Your task to perform on an android device: Search for "usb-c to usb-b" on bestbuy.com, select the first entry, and add it to the cart. Image 0: 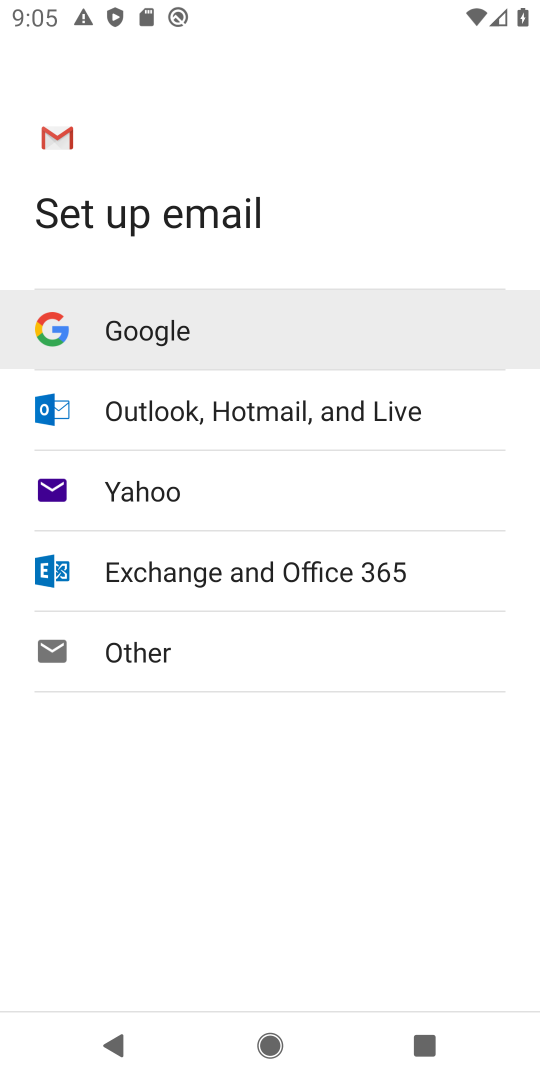
Step 0: press home button
Your task to perform on an android device: Search for "usb-c to usb-b" on bestbuy.com, select the first entry, and add it to the cart. Image 1: 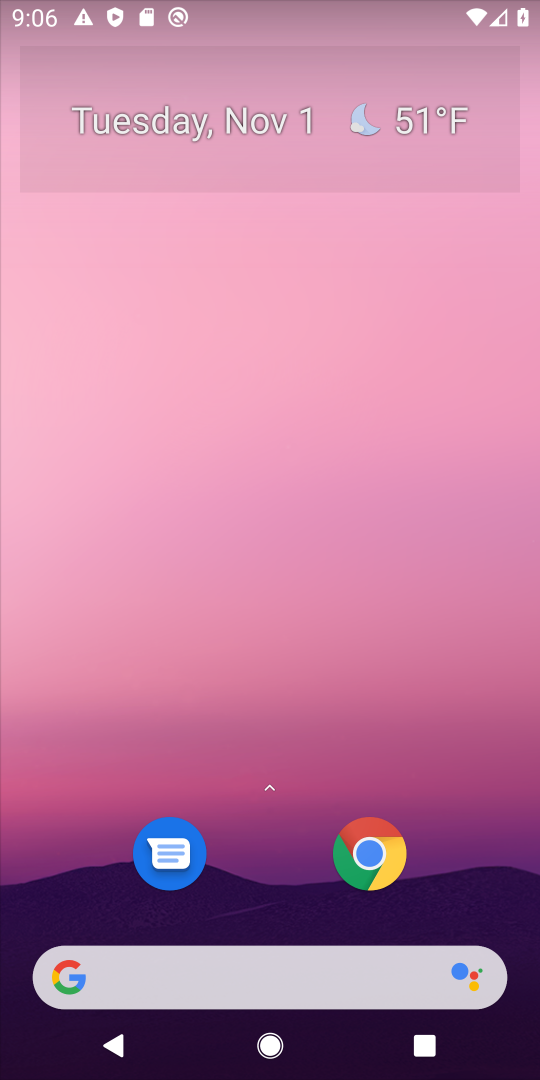
Step 1: click (286, 1007)
Your task to perform on an android device: Search for "usb-c to usb-b" on bestbuy.com, select the first entry, and add it to the cart. Image 2: 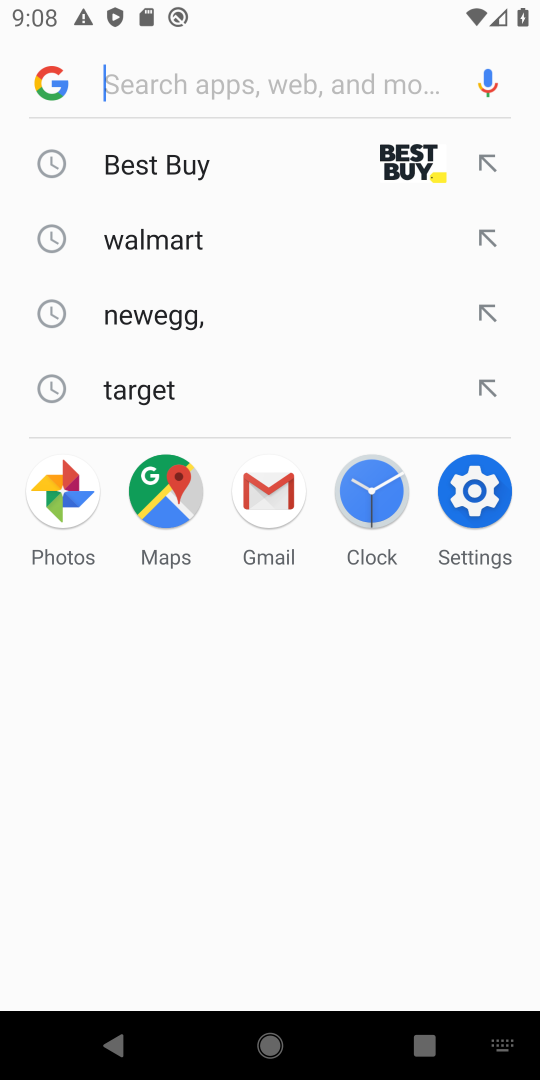
Step 2: click (182, 187)
Your task to perform on an android device: Search for "usb-c to usb-b" on bestbuy.com, select the first entry, and add it to the cart. Image 3: 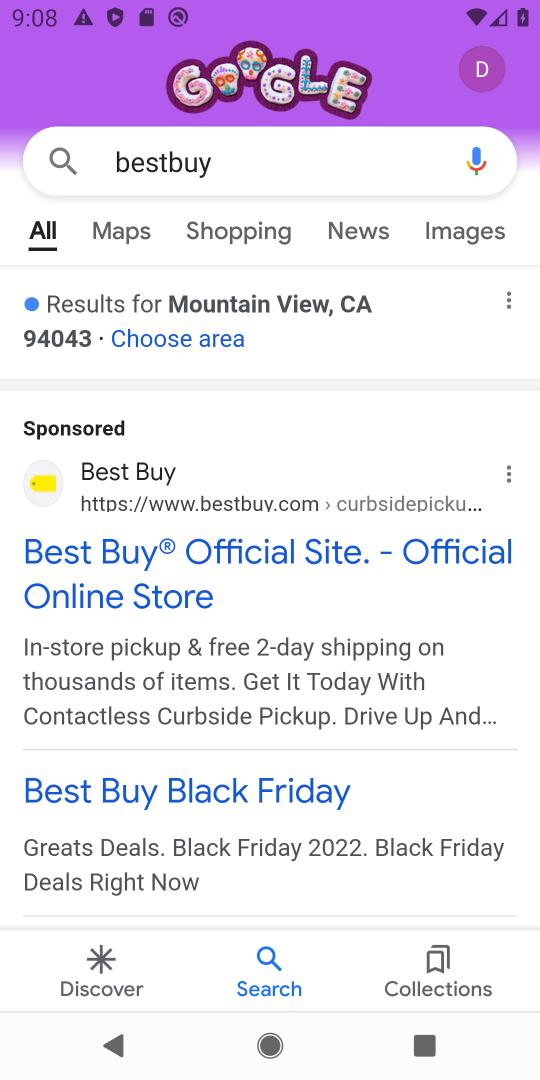
Step 3: click (194, 585)
Your task to perform on an android device: Search for "usb-c to usb-b" on bestbuy.com, select the first entry, and add it to the cart. Image 4: 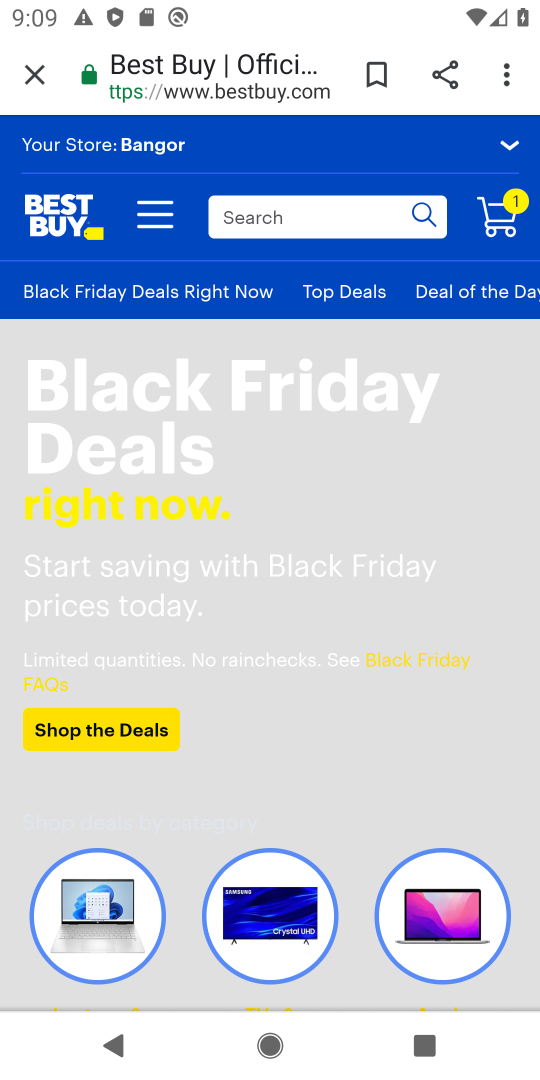
Step 4: click (306, 219)
Your task to perform on an android device: Search for "usb-c to usb-b" on bestbuy.com, select the first entry, and add it to the cart. Image 5: 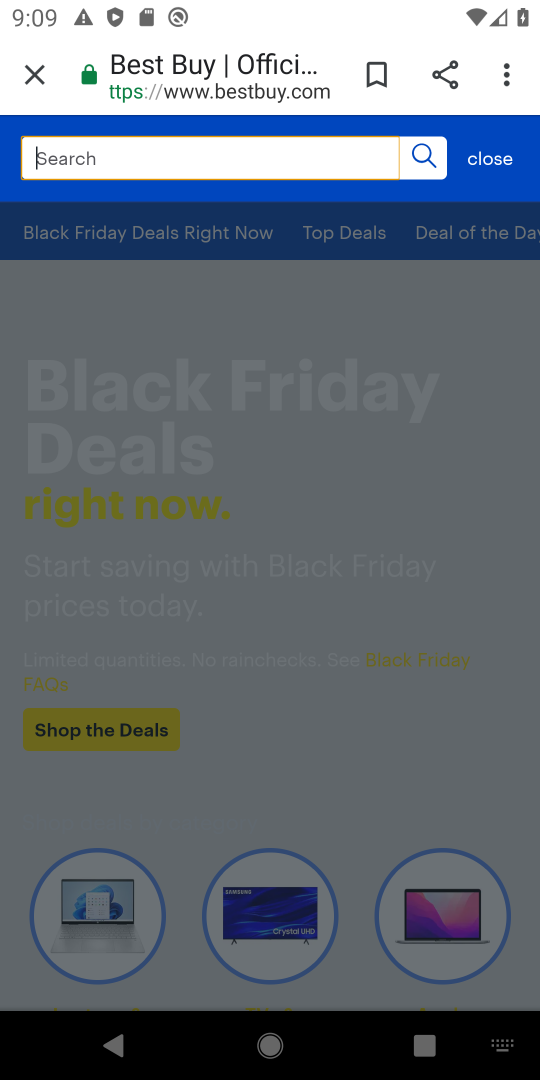
Step 5: type "uab-c to usb -b"
Your task to perform on an android device: Search for "usb-c to usb-b" on bestbuy.com, select the first entry, and add it to the cart. Image 6: 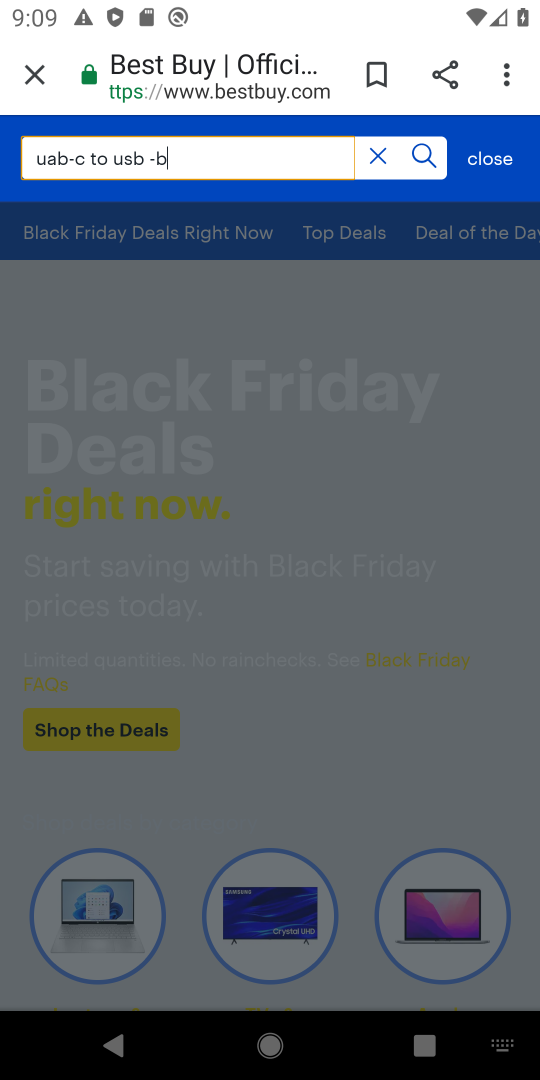
Step 6: click (412, 155)
Your task to perform on an android device: Search for "usb-c to usb-b" on bestbuy.com, select the first entry, and add it to the cart. Image 7: 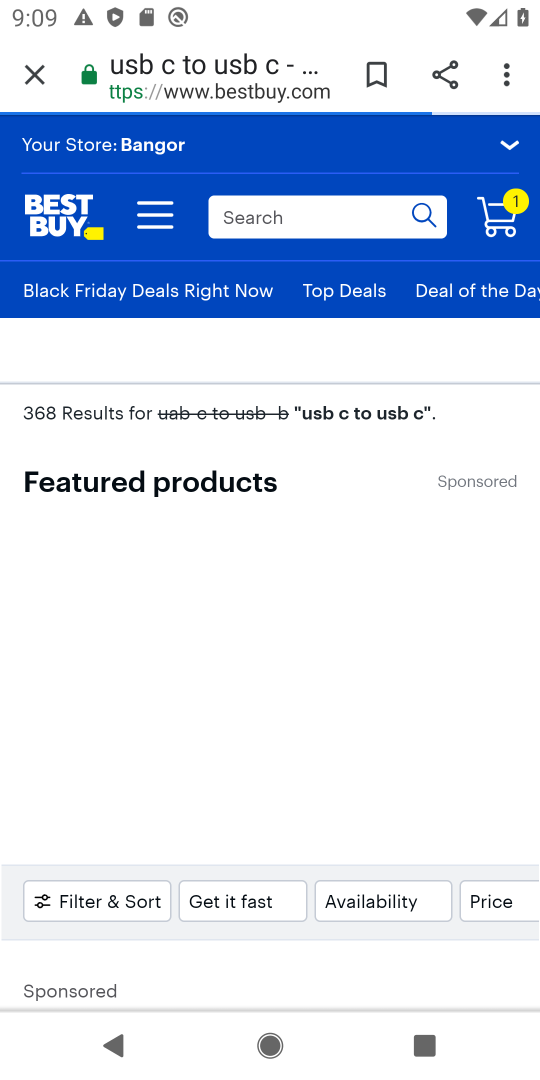
Step 7: drag from (195, 762) to (199, 299)
Your task to perform on an android device: Search for "usb-c to usb-b" on bestbuy.com, select the first entry, and add it to the cart. Image 8: 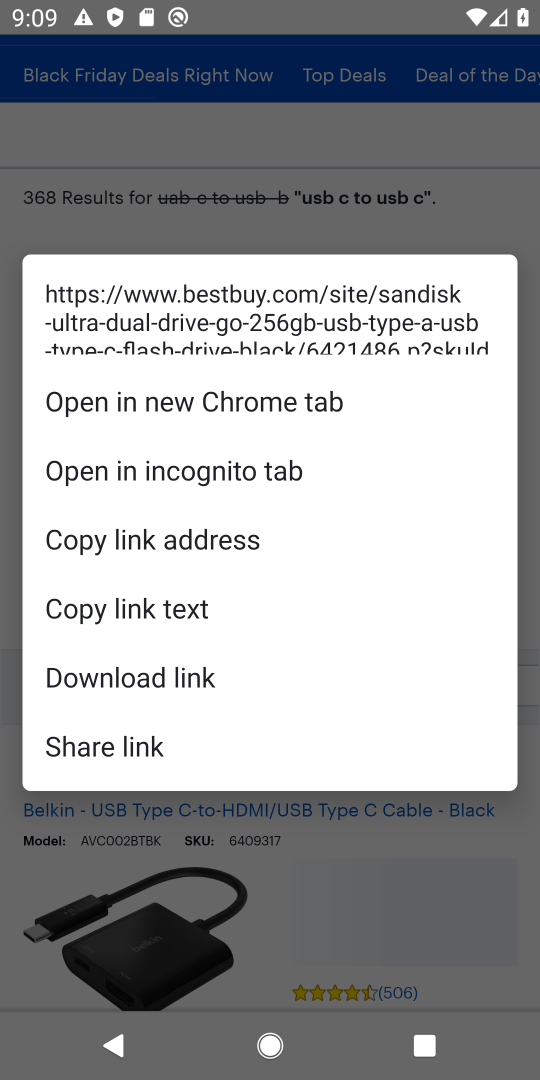
Step 8: click (264, 887)
Your task to perform on an android device: Search for "usb-c to usb-b" on bestbuy.com, select the first entry, and add it to the cart. Image 9: 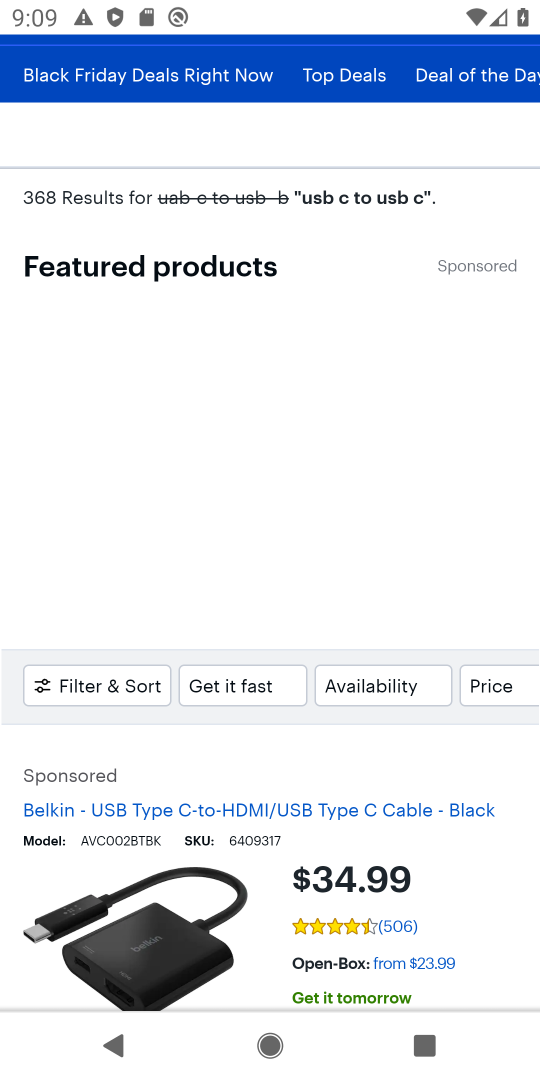
Step 9: drag from (257, 896) to (260, 510)
Your task to perform on an android device: Search for "usb-c to usb-b" on bestbuy.com, select the first entry, and add it to the cart. Image 10: 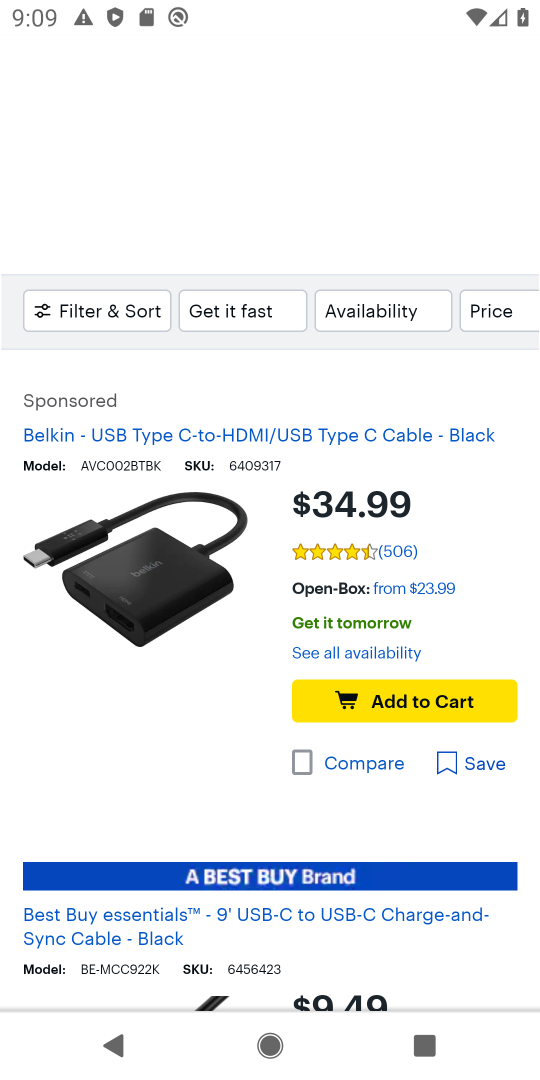
Step 10: click (369, 716)
Your task to perform on an android device: Search for "usb-c to usb-b" on bestbuy.com, select the first entry, and add it to the cart. Image 11: 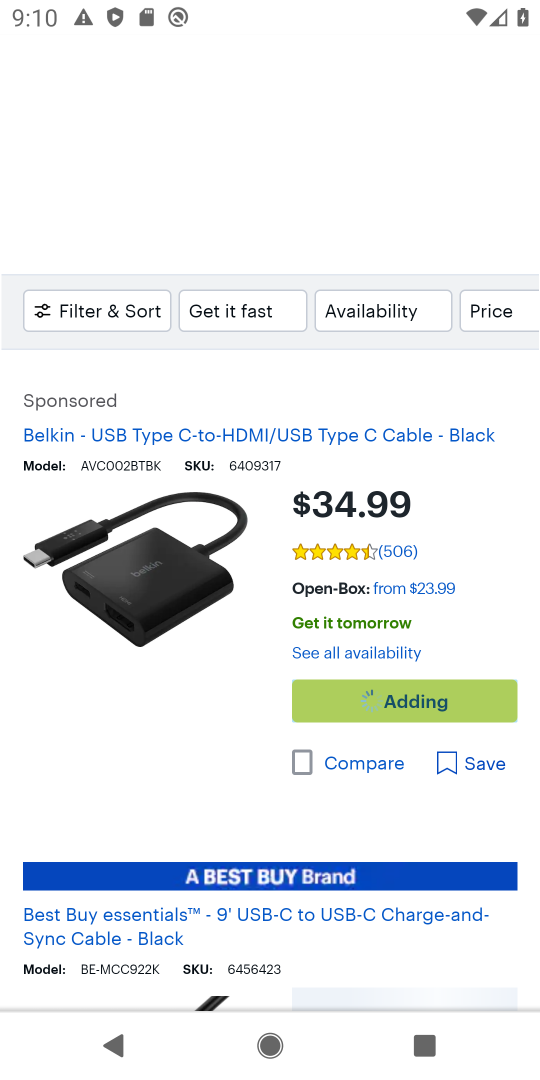
Step 11: task complete